Your task to perform on an android device: Go to notification settings Image 0: 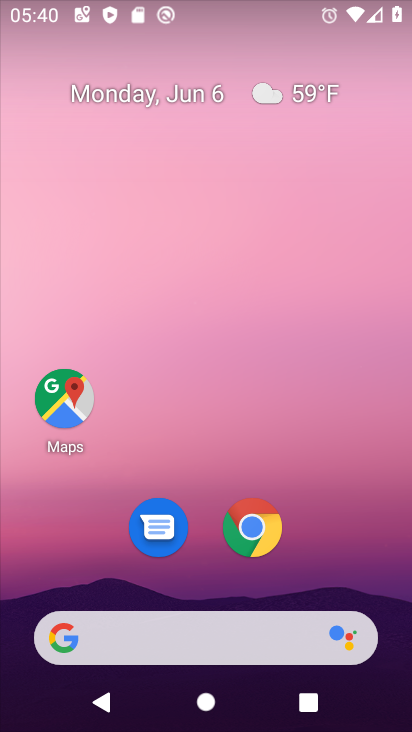
Step 0: drag from (378, 702) to (299, 0)
Your task to perform on an android device: Go to notification settings Image 1: 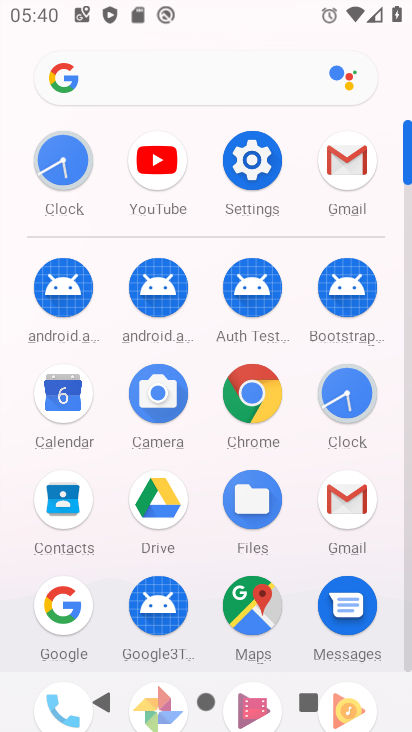
Step 1: click (249, 157)
Your task to perform on an android device: Go to notification settings Image 2: 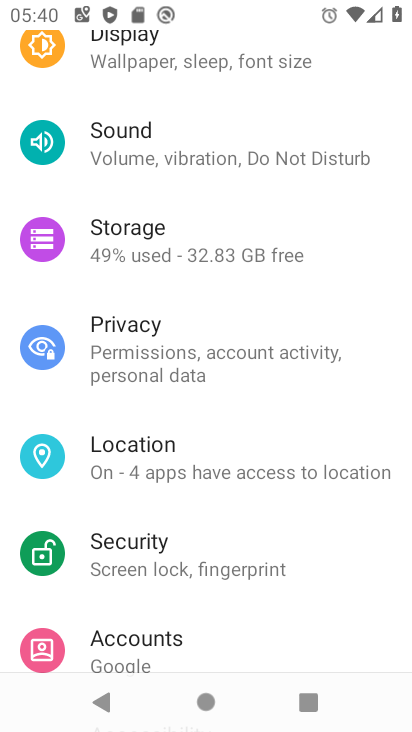
Step 2: drag from (204, 81) to (266, 559)
Your task to perform on an android device: Go to notification settings Image 3: 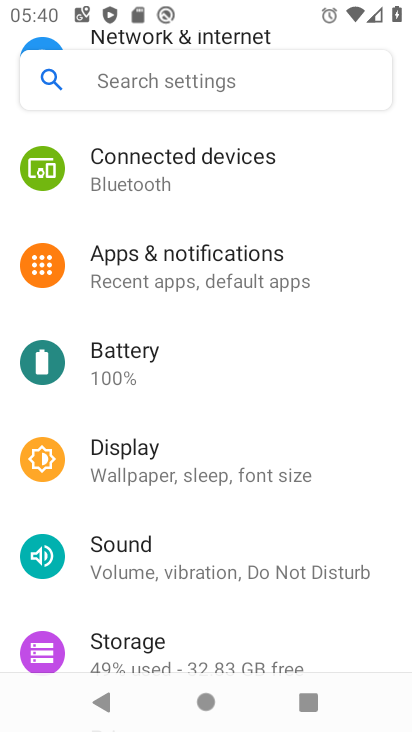
Step 3: click (196, 257)
Your task to perform on an android device: Go to notification settings Image 4: 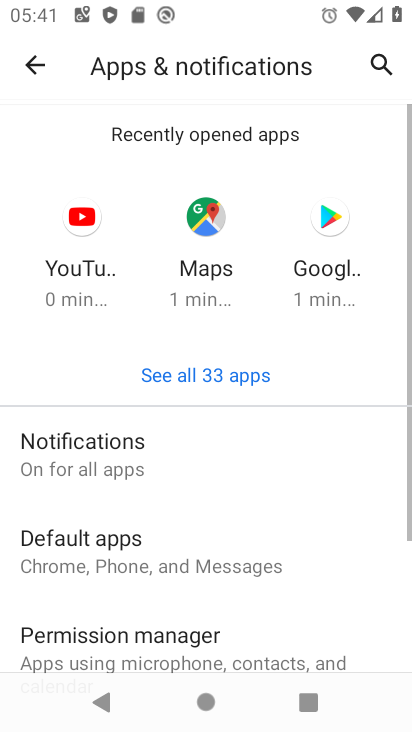
Step 4: click (92, 448)
Your task to perform on an android device: Go to notification settings Image 5: 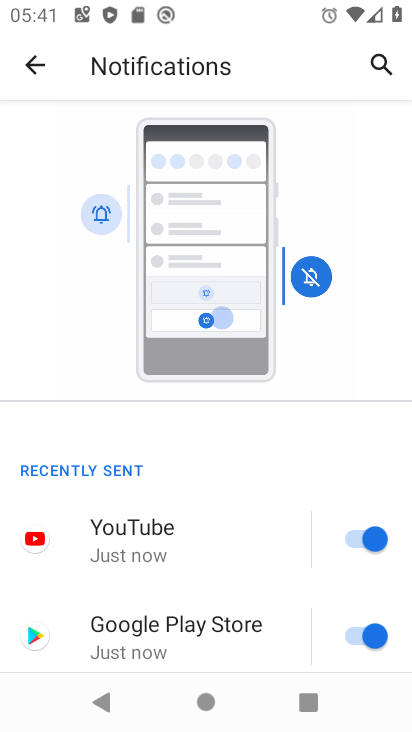
Step 5: task complete